Your task to perform on an android device: turn on location history Image 0: 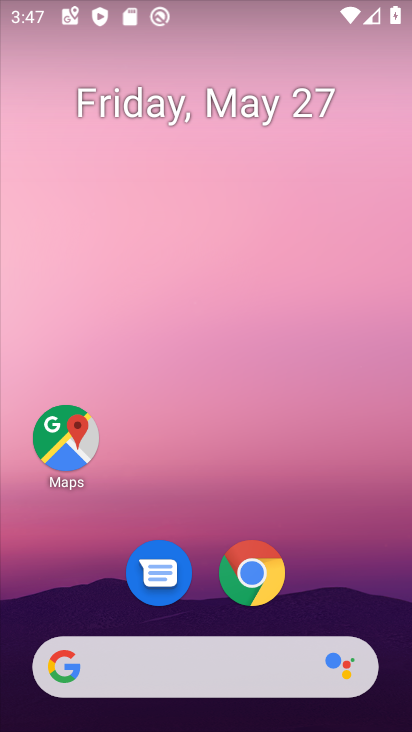
Step 0: drag from (266, 485) to (253, 10)
Your task to perform on an android device: turn on location history Image 1: 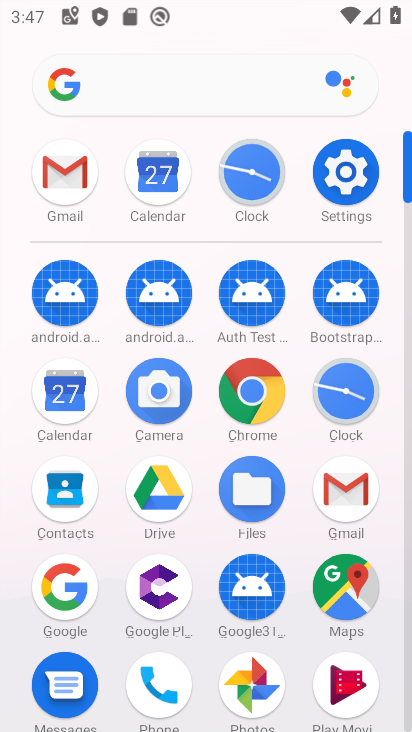
Step 1: click (341, 173)
Your task to perform on an android device: turn on location history Image 2: 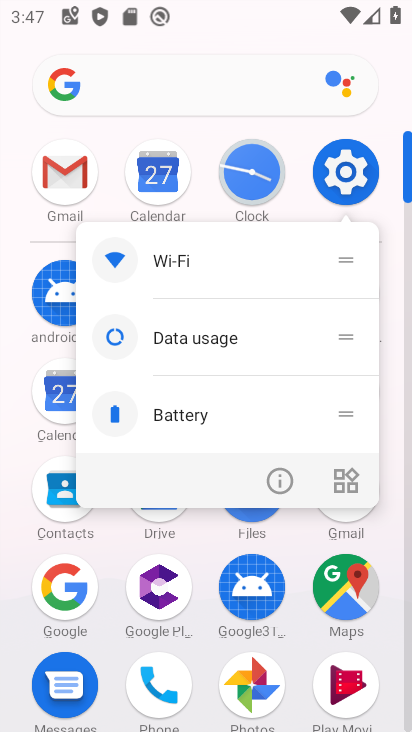
Step 2: click (351, 172)
Your task to perform on an android device: turn on location history Image 3: 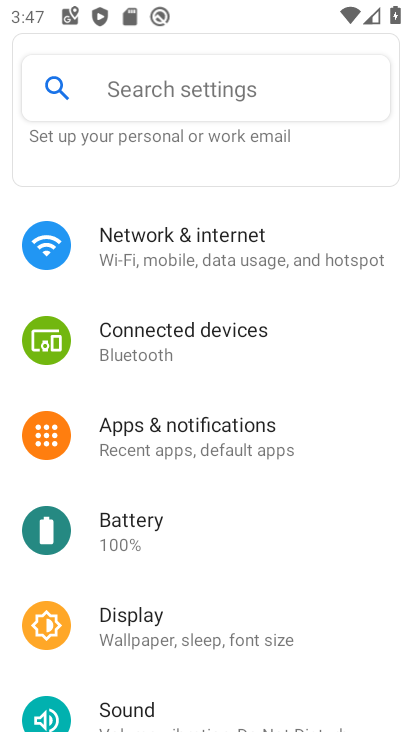
Step 3: drag from (233, 519) to (216, 41)
Your task to perform on an android device: turn on location history Image 4: 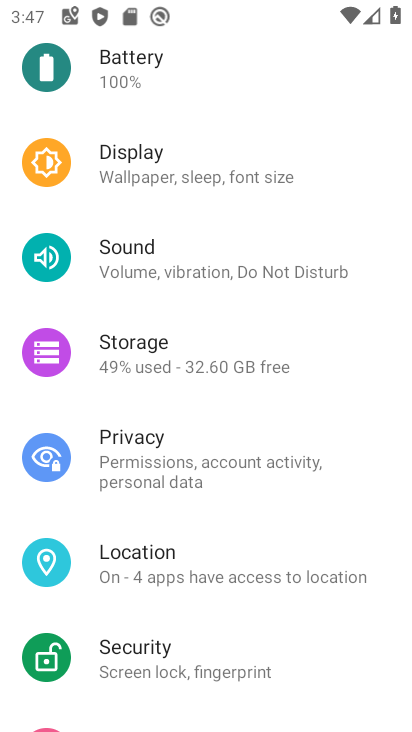
Step 4: click (217, 540)
Your task to perform on an android device: turn on location history Image 5: 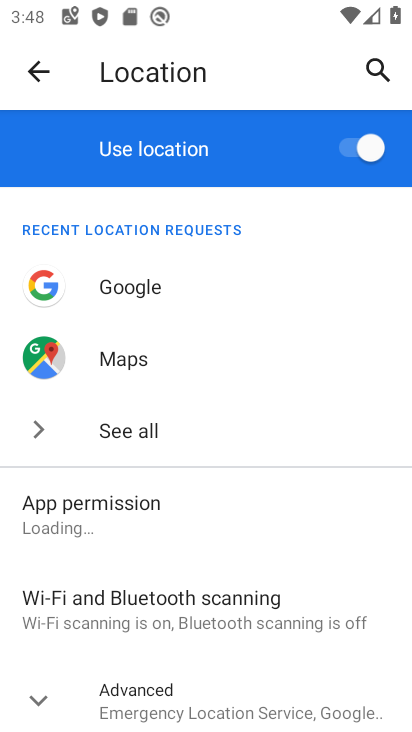
Step 5: click (34, 695)
Your task to perform on an android device: turn on location history Image 6: 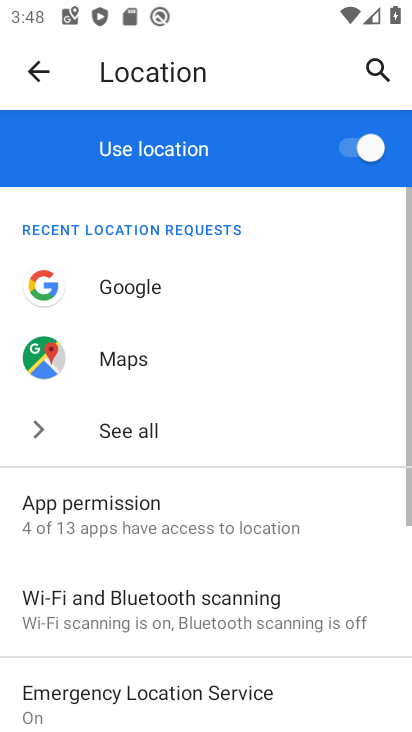
Step 6: task complete